Your task to perform on an android device: turn on sleep mode Image 0: 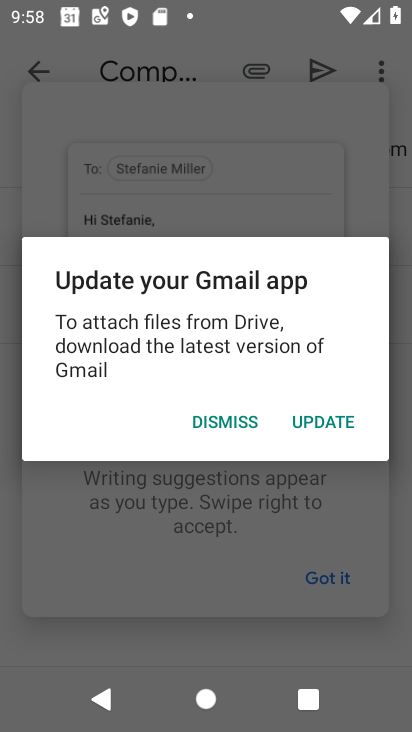
Step 0: click (236, 429)
Your task to perform on an android device: turn on sleep mode Image 1: 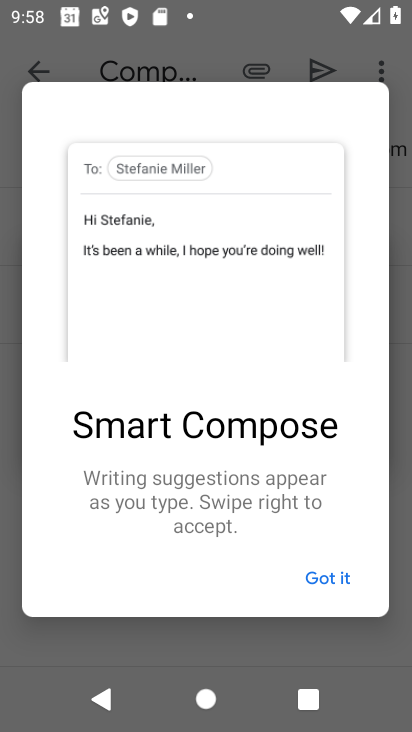
Step 1: click (333, 570)
Your task to perform on an android device: turn on sleep mode Image 2: 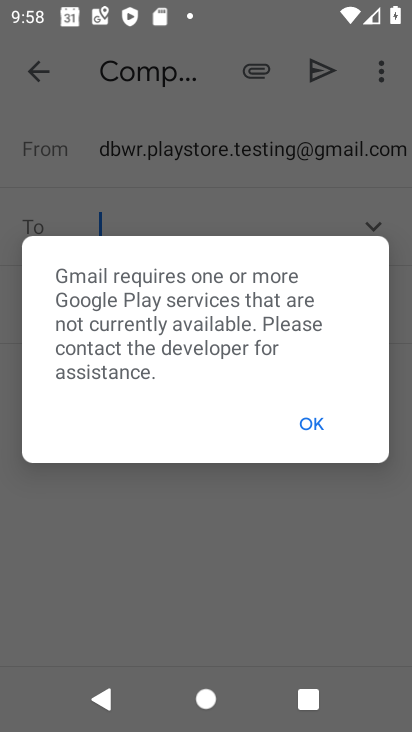
Step 2: click (317, 424)
Your task to perform on an android device: turn on sleep mode Image 3: 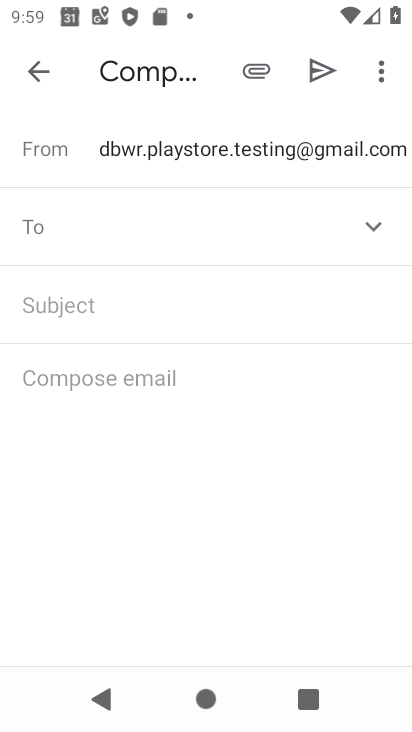
Step 3: press home button
Your task to perform on an android device: turn on sleep mode Image 4: 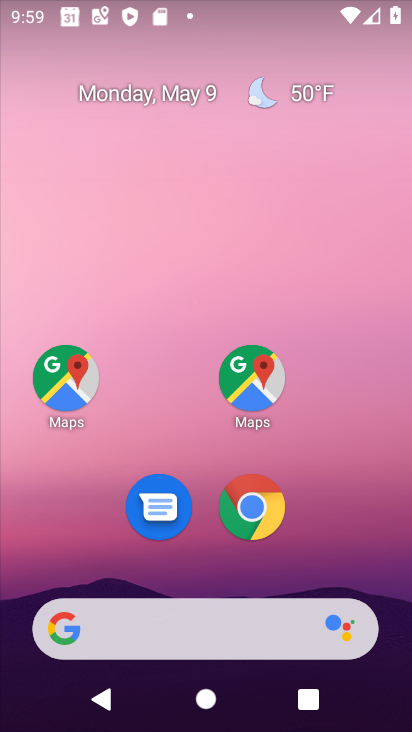
Step 4: drag from (344, 559) to (251, 66)
Your task to perform on an android device: turn on sleep mode Image 5: 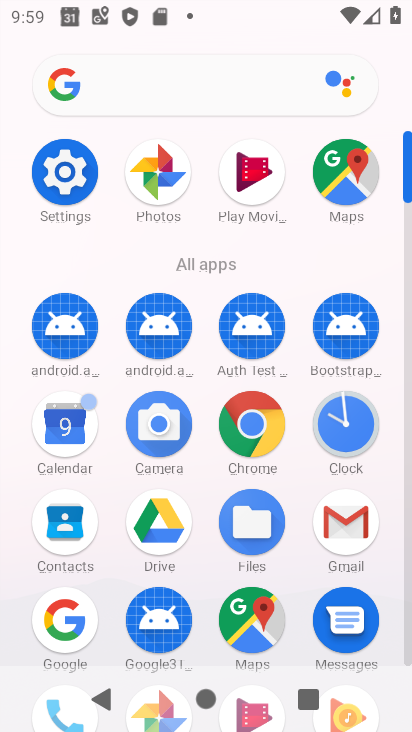
Step 5: drag from (291, 270) to (273, 48)
Your task to perform on an android device: turn on sleep mode Image 6: 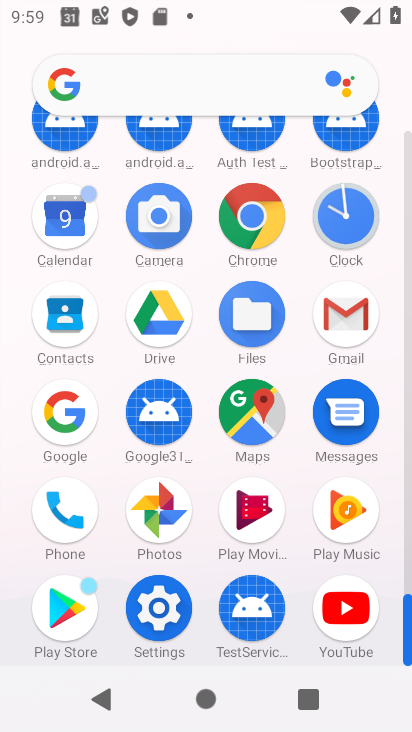
Step 6: click (161, 604)
Your task to perform on an android device: turn on sleep mode Image 7: 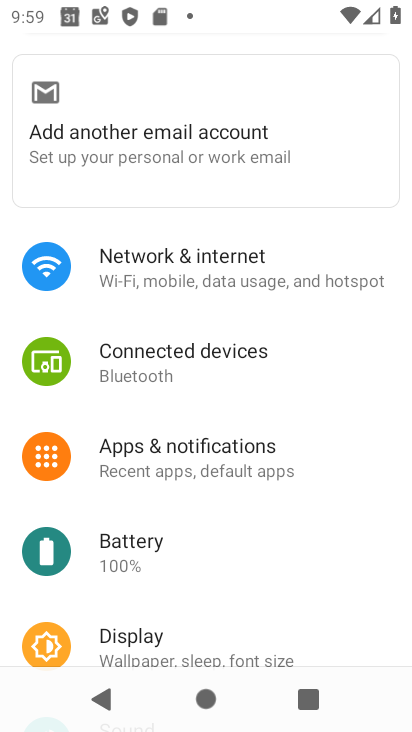
Step 7: click (180, 629)
Your task to perform on an android device: turn on sleep mode Image 8: 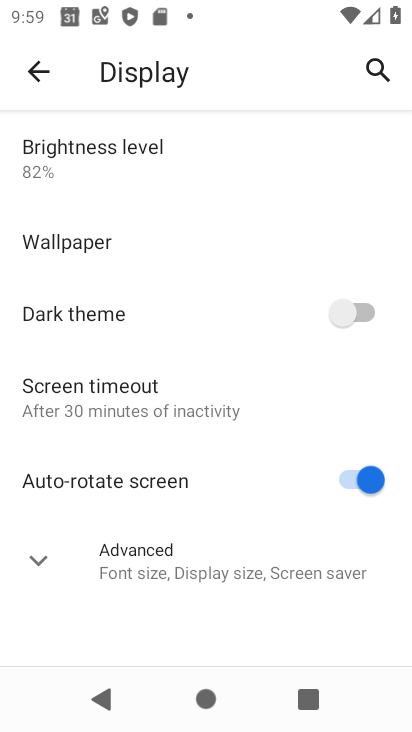
Step 8: click (158, 394)
Your task to perform on an android device: turn on sleep mode Image 9: 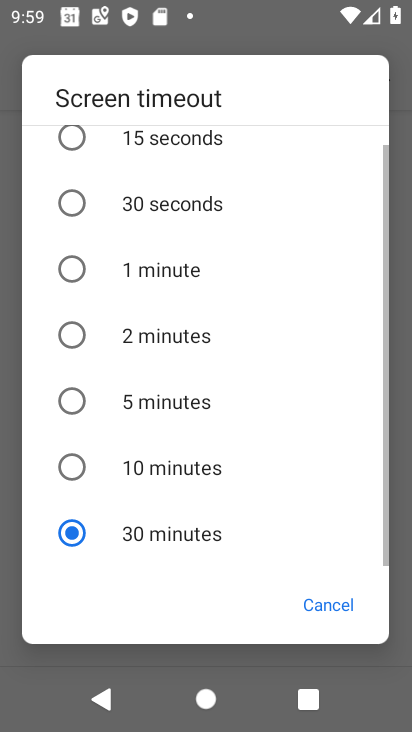
Step 9: task complete